Your task to perform on an android device: Is it going to rain this weekend? Image 0: 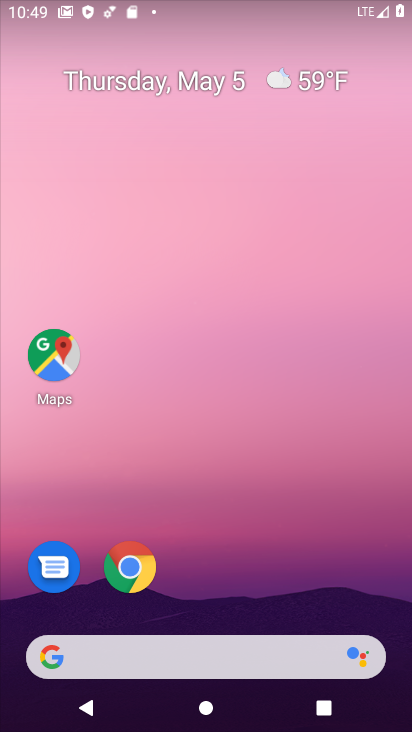
Step 0: drag from (250, 593) to (330, 112)
Your task to perform on an android device: Is it going to rain this weekend? Image 1: 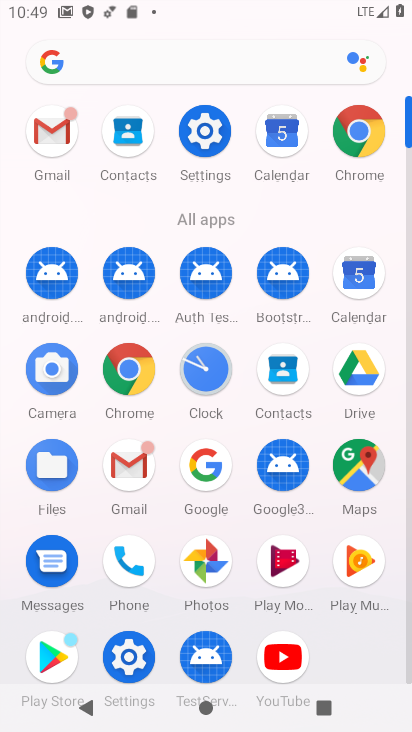
Step 1: click (365, 277)
Your task to perform on an android device: Is it going to rain this weekend? Image 2: 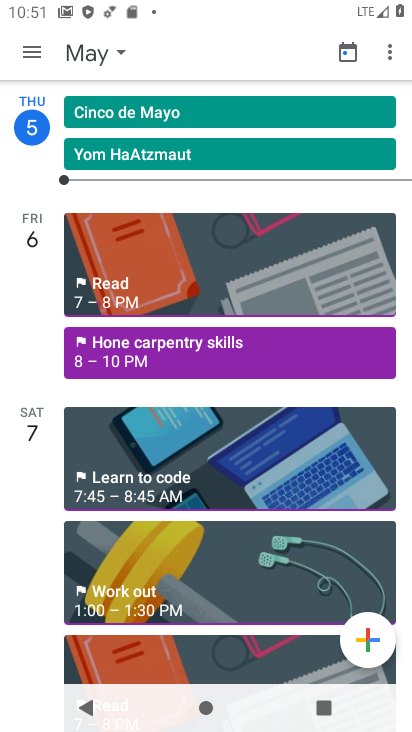
Step 2: press back button
Your task to perform on an android device: Is it going to rain this weekend? Image 3: 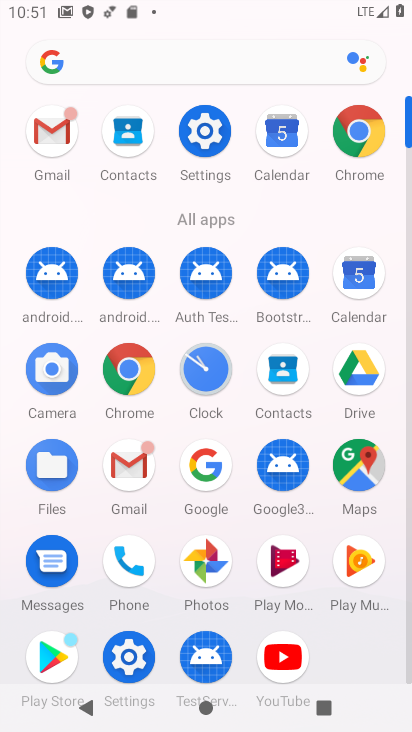
Step 3: click (119, 62)
Your task to perform on an android device: Is it going to rain this weekend? Image 4: 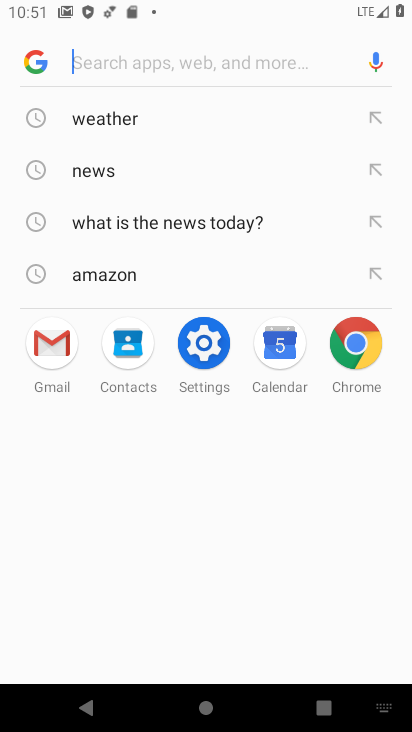
Step 4: click (93, 112)
Your task to perform on an android device: Is it going to rain this weekend? Image 5: 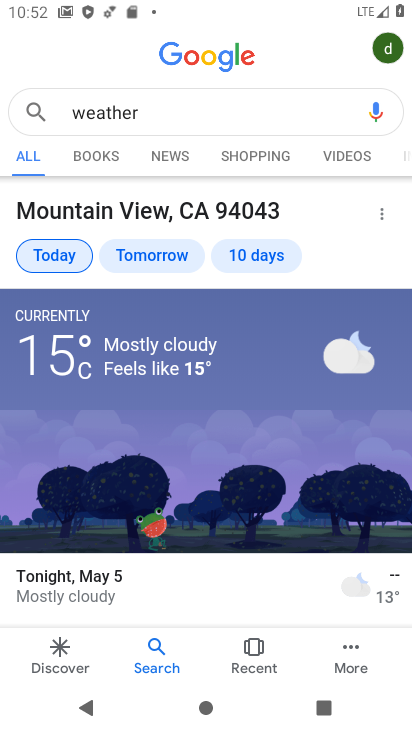
Step 5: click (232, 255)
Your task to perform on an android device: Is it going to rain this weekend? Image 6: 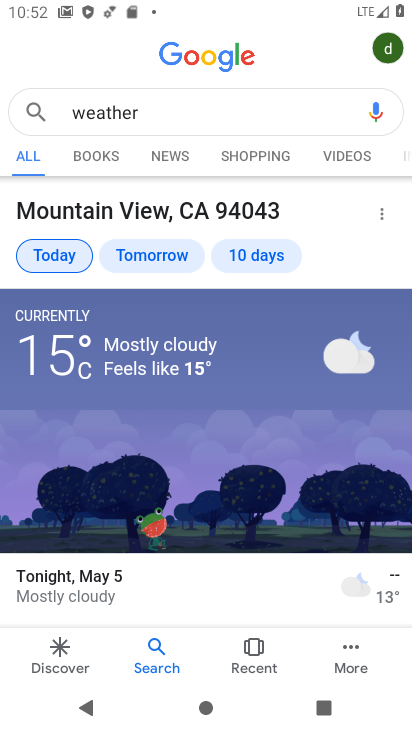
Step 6: click (251, 254)
Your task to perform on an android device: Is it going to rain this weekend? Image 7: 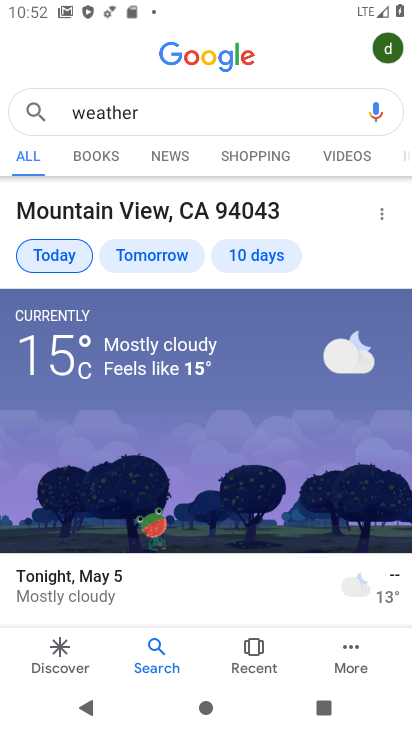
Step 7: click (252, 255)
Your task to perform on an android device: Is it going to rain this weekend? Image 8: 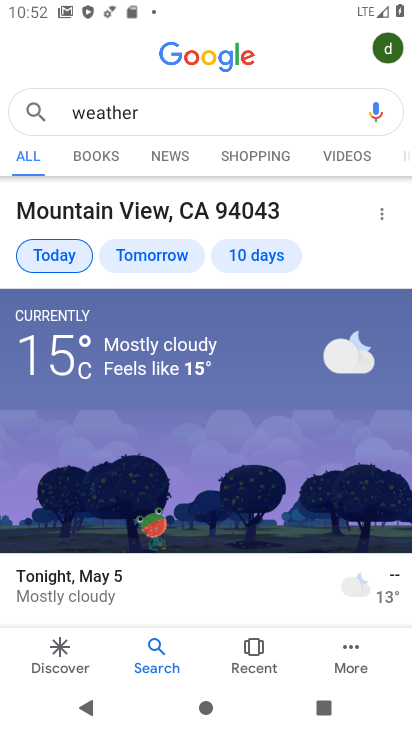
Step 8: task complete